Your task to perform on an android device: Open settings on Google Maps Image 0: 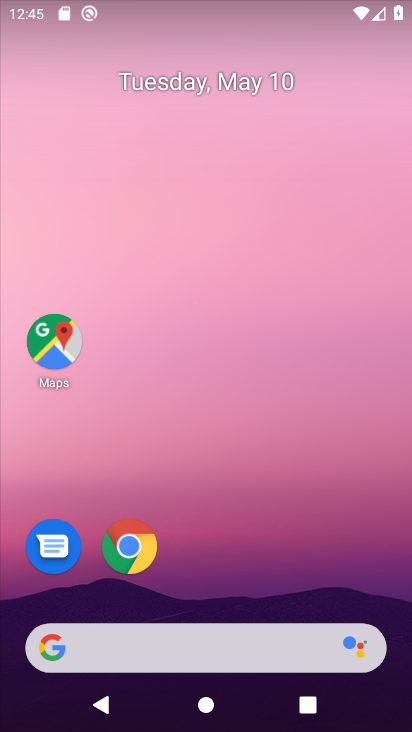
Step 0: press home button
Your task to perform on an android device: Open settings on Google Maps Image 1: 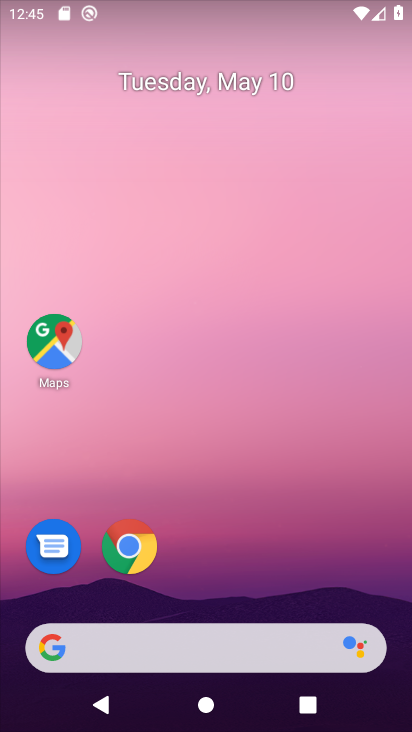
Step 1: click (52, 343)
Your task to perform on an android device: Open settings on Google Maps Image 2: 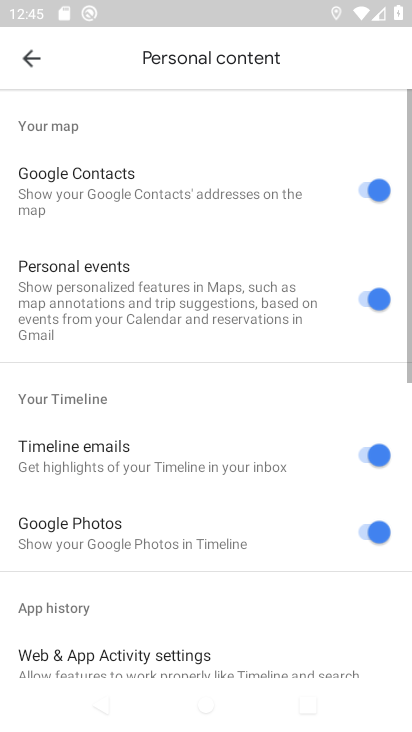
Step 2: task complete